Your task to perform on an android device: Open Chrome and go to settings Image 0: 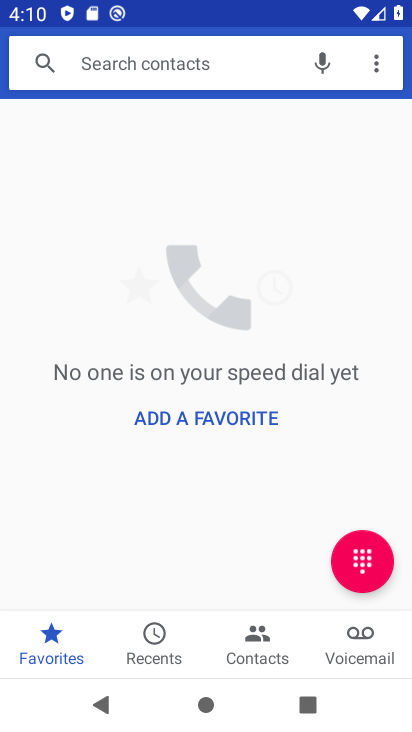
Step 0: press home button
Your task to perform on an android device: Open Chrome and go to settings Image 1: 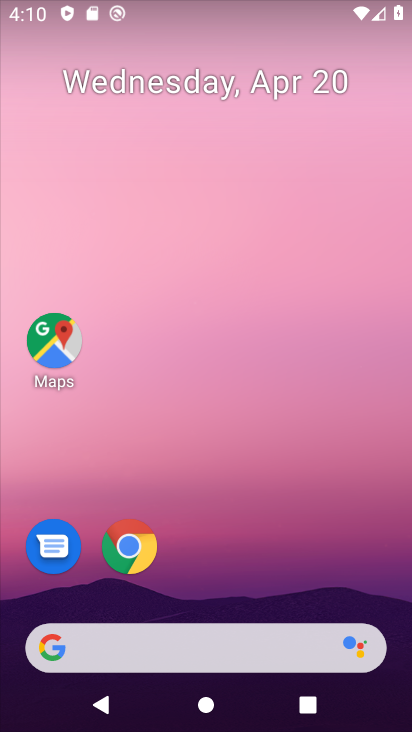
Step 1: drag from (272, 559) to (223, 111)
Your task to perform on an android device: Open Chrome and go to settings Image 2: 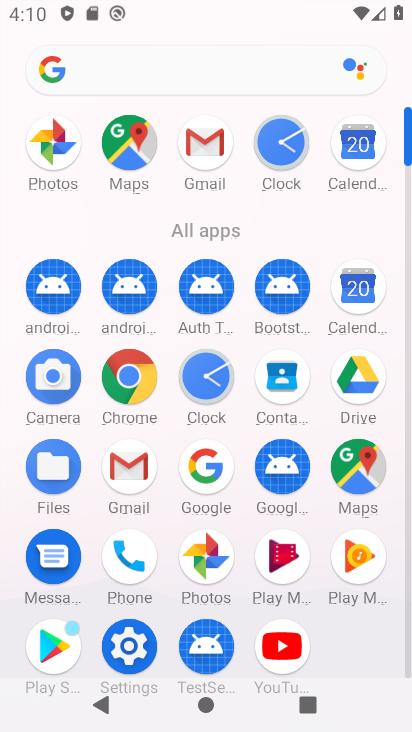
Step 2: click (135, 369)
Your task to perform on an android device: Open Chrome and go to settings Image 3: 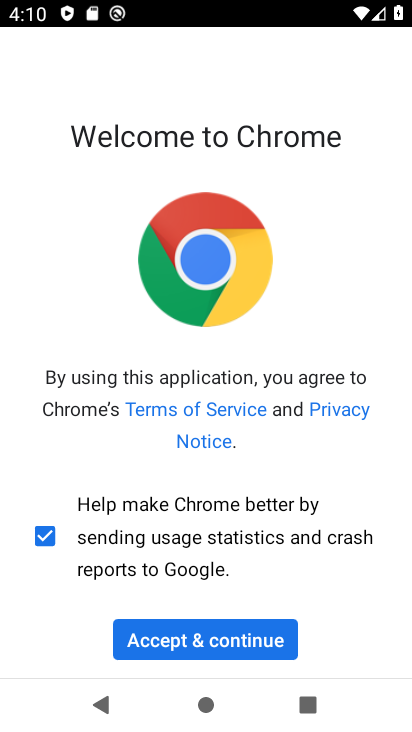
Step 3: click (253, 638)
Your task to perform on an android device: Open Chrome and go to settings Image 4: 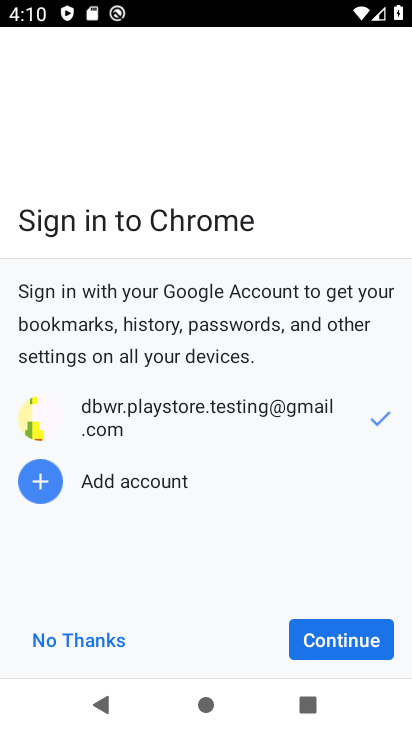
Step 4: click (341, 634)
Your task to perform on an android device: Open Chrome and go to settings Image 5: 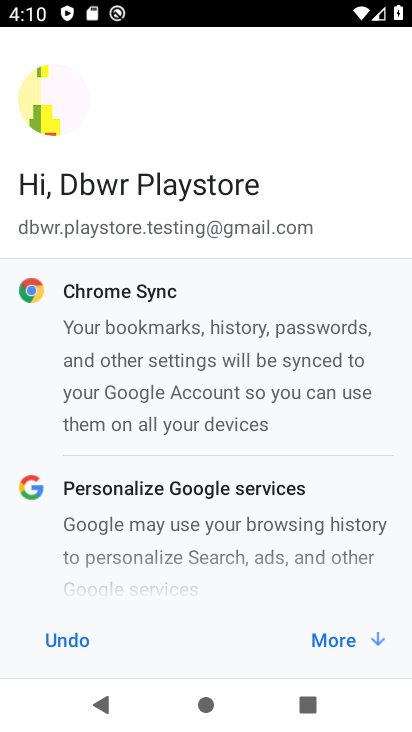
Step 5: click (341, 633)
Your task to perform on an android device: Open Chrome and go to settings Image 6: 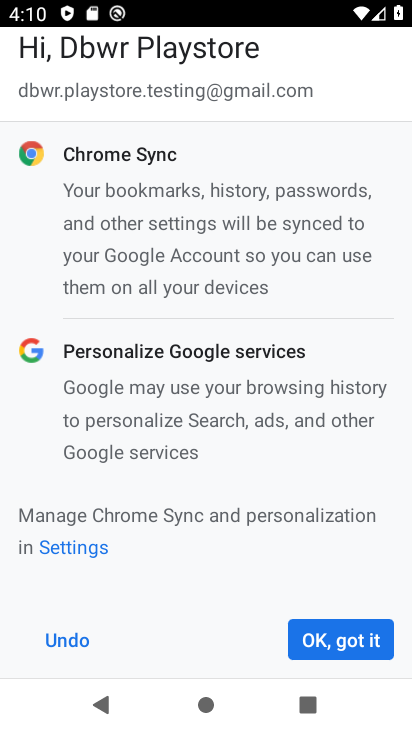
Step 6: click (341, 633)
Your task to perform on an android device: Open Chrome and go to settings Image 7: 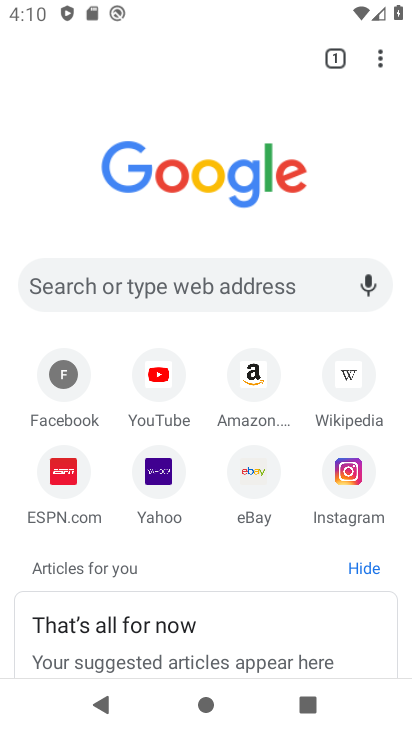
Step 7: click (382, 56)
Your task to perform on an android device: Open Chrome and go to settings Image 8: 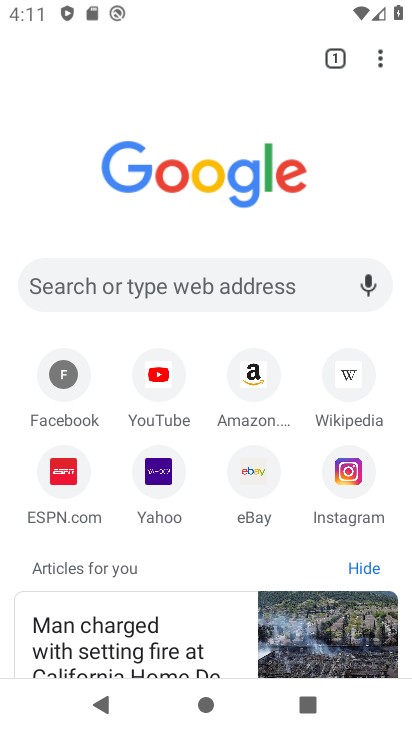
Step 8: click (377, 65)
Your task to perform on an android device: Open Chrome and go to settings Image 9: 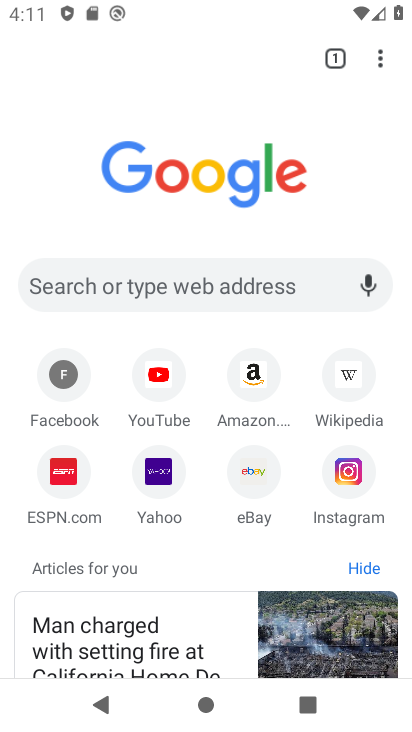
Step 9: click (377, 65)
Your task to perform on an android device: Open Chrome and go to settings Image 10: 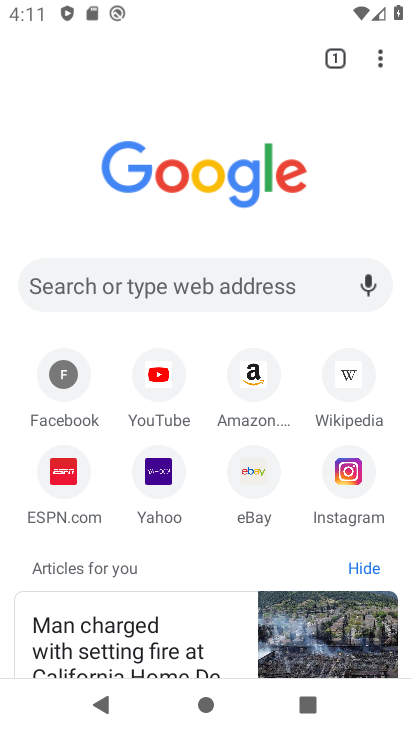
Step 10: click (377, 65)
Your task to perform on an android device: Open Chrome and go to settings Image 11: 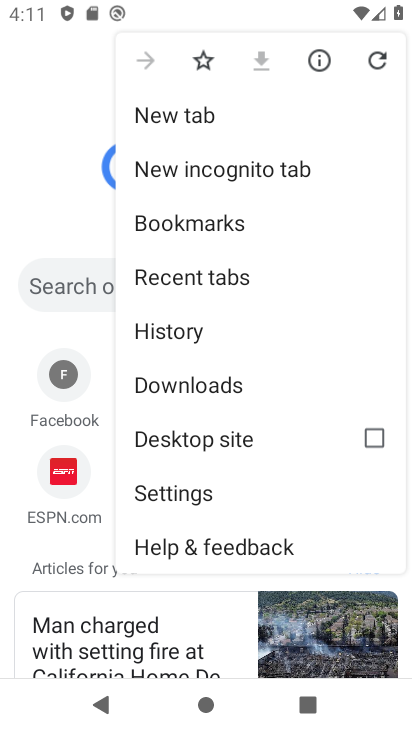
Step 11: click (214, 481)
Your task to perform on an android device: Open Chrome and go to settings Image 12: 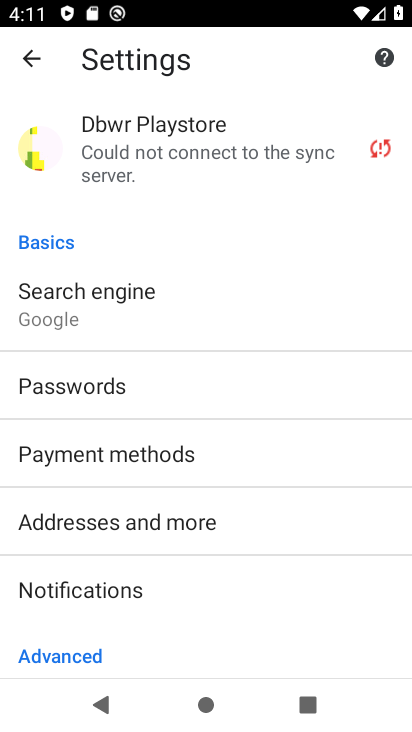
Step 12: task complete